Your task to perform on an android device: Do I have any events today? Image 0: 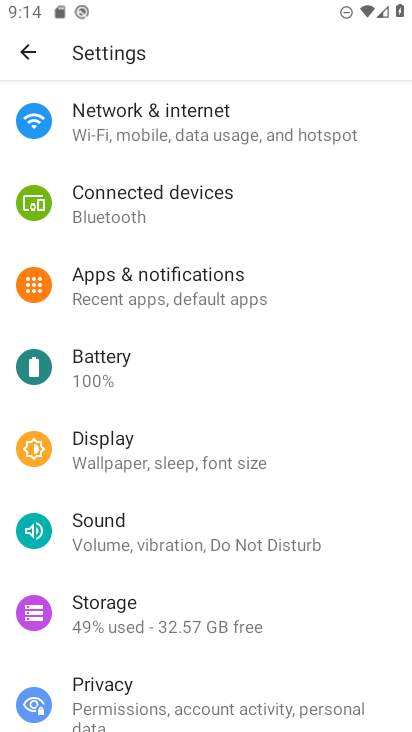
Step 0: press back button
Your task to perform on an android device: Do I have any events today? Image 1: 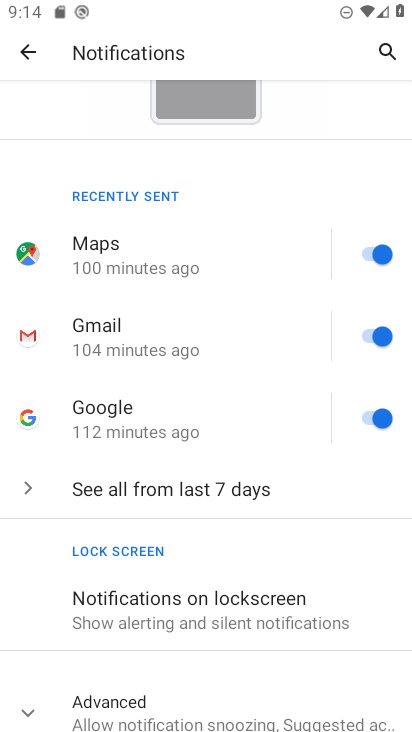
Step 1: press back button
Your task to perform on an android device: Do I have any events today? Image 2: 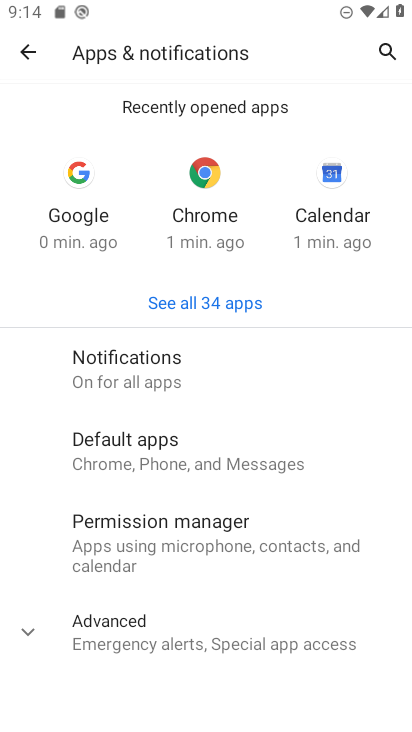
Step 2: press back button
Your task to perform on an android device: Do I have any events today? Image 3: 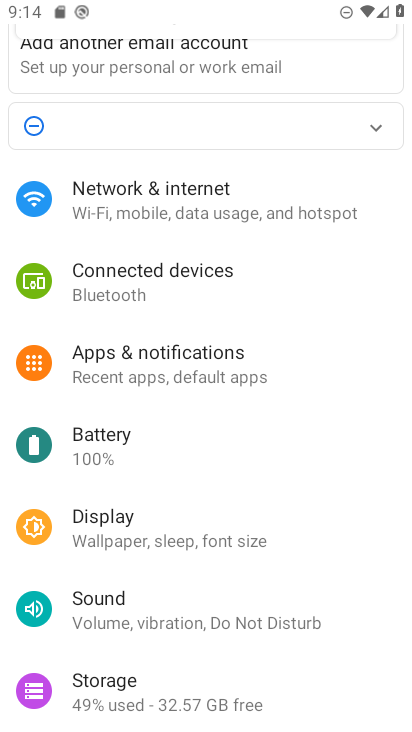
Step 3: press back button
Your task to perform on an android device: Do I have any events today? Image 4: 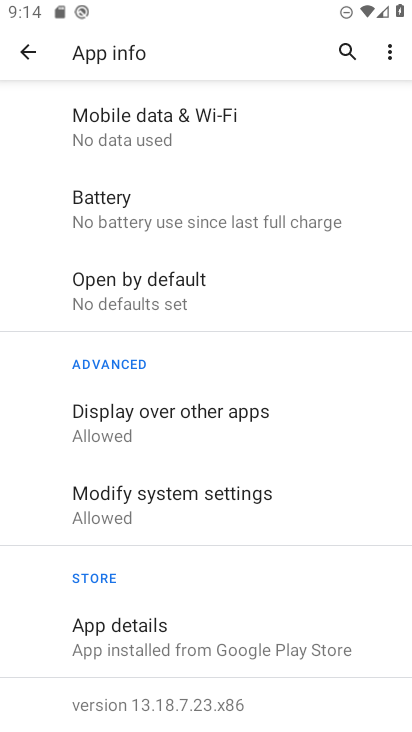
Step 4: press home button
Your task to perform on an android device: Do I have any events today? Image 5: 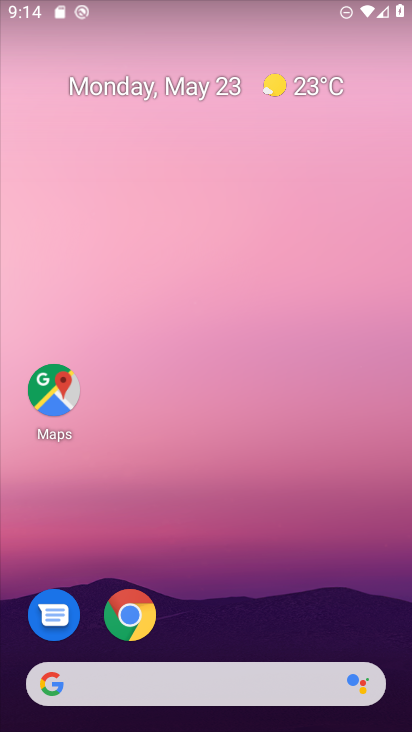
Step 5: drag from (243, 598) to (180, 118)
Your task to perform on an android device: Do I have any events today? Image 6: 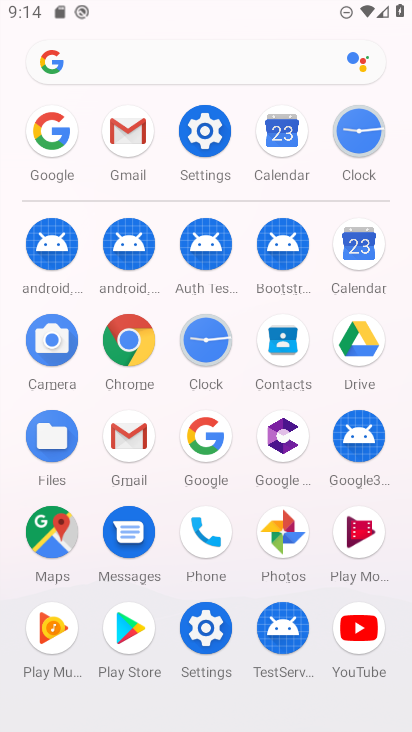
Step 6: click (359, 247)
Your task to perform on an android device: Do I have any events today? Image 7: 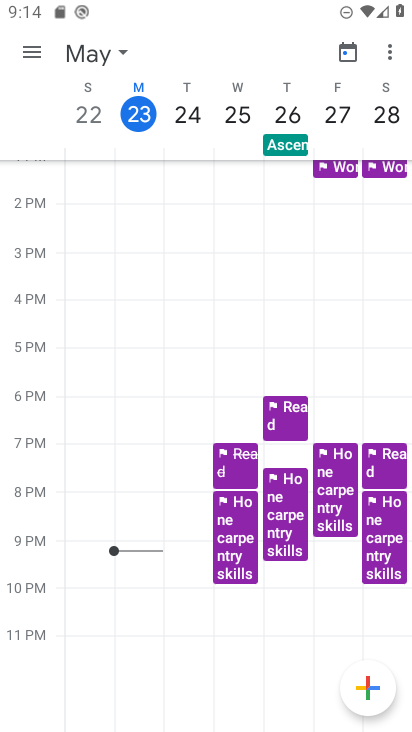
Step 7: click (352, 50)
Your task to perform on an android device: Do I have any events today? Image 8: 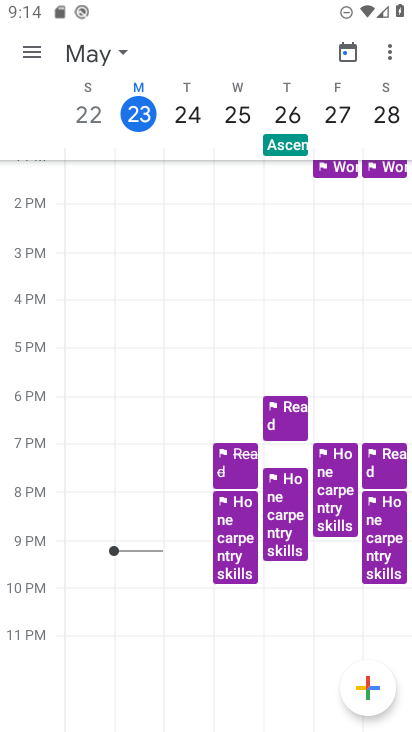
Step 8: click (130, 58)
Your task to perform on an android device: Do I have any events today? Image 9: 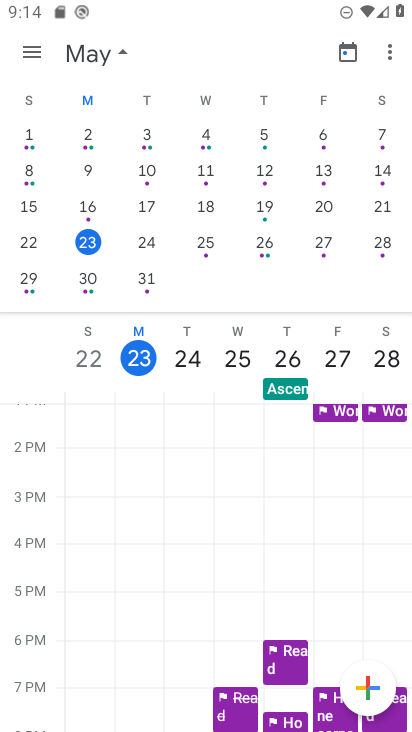
Step 9: click (86, 243)
Your task to perform on an android device: Do I have any events today? Image 10: 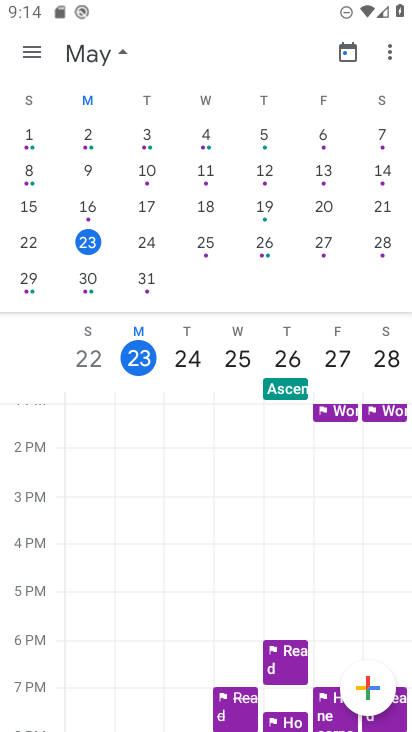
Step 10: click (34, 57)
Your task to perform on an android device: Do I have any events today? Image 11: 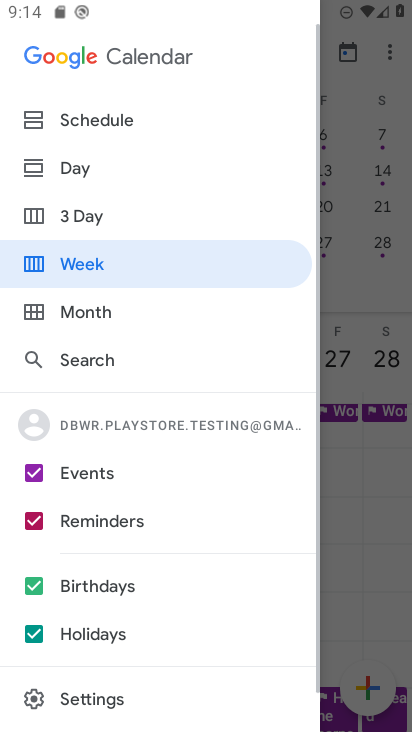
Step 11: click (65, 127)
Your task to perform on an android device: Do I have any events today? Image 12: 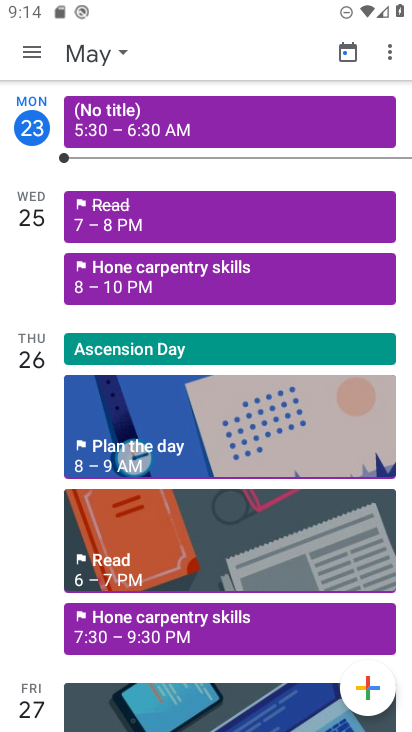
Step 12: task complete